Your task to perform on an android device: What's on my calendar today? Image 0: 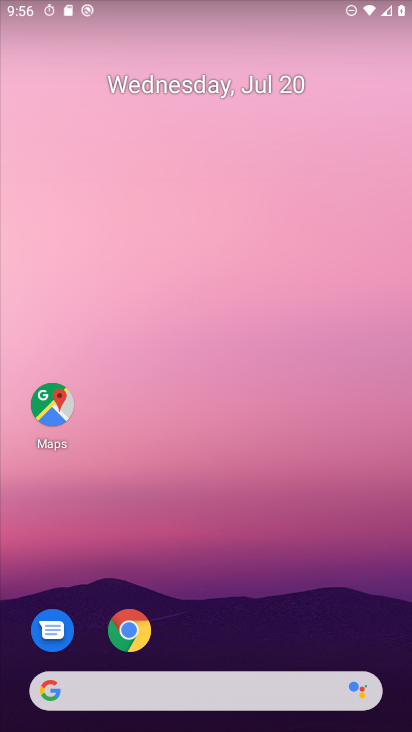
Step 0: drag from (281, 666) to (315, 22)
Your task to perform on an android device: What's on my calendar today? Image 1: 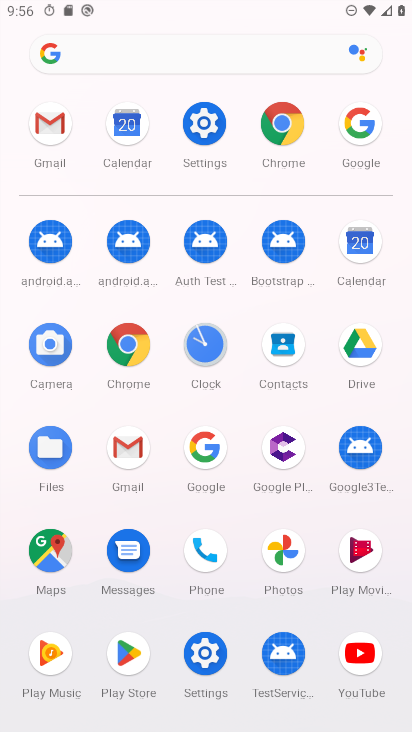
Step 1: click (372, 282)
Your task to perform on an android device: What's on my calendar today? Image 2: 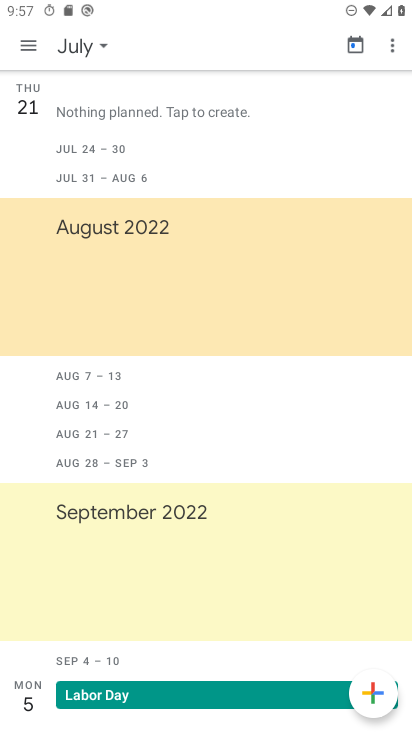
Step 2: task complete